Your task to perform on an android device: turn on javascript in the chrome app Image 0: 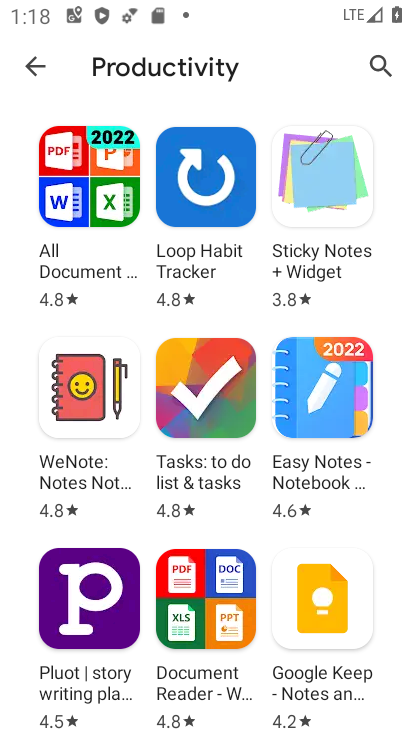
Step 0: press home button
Your task to perform on an android device: turn on javascript in the chrome app Image 1: 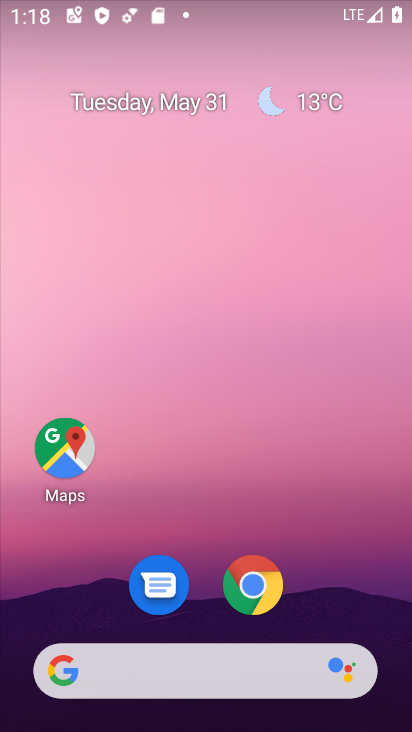
Step 1: click (258, 591)
Your task to perform on an android device: turn on javascript in the chrome app Image 2: 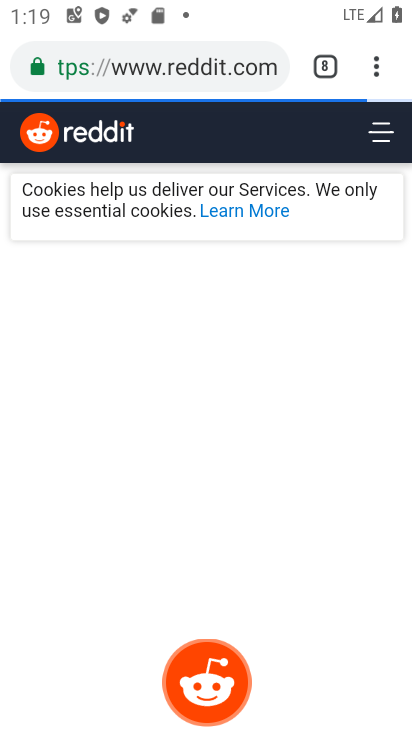
Step 2: click (367, 69)
Your task to perform on an android device: turn on javascript in the chrome app Image 3: 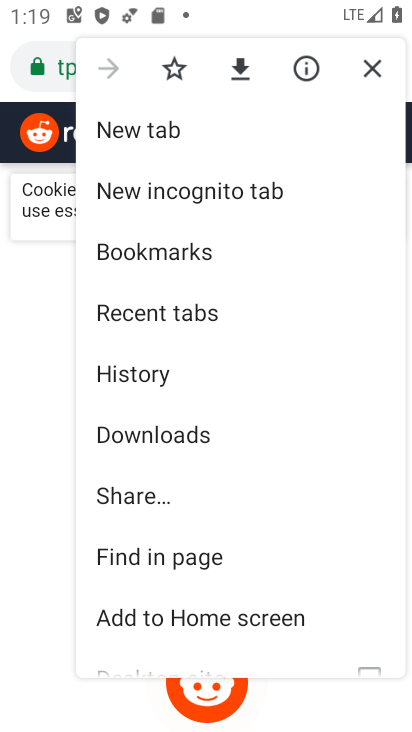
Step 3: drag from (244, 494) to (262, 292)
Your task to perform on an android device: turn on javascript in the chrome app Image 4: 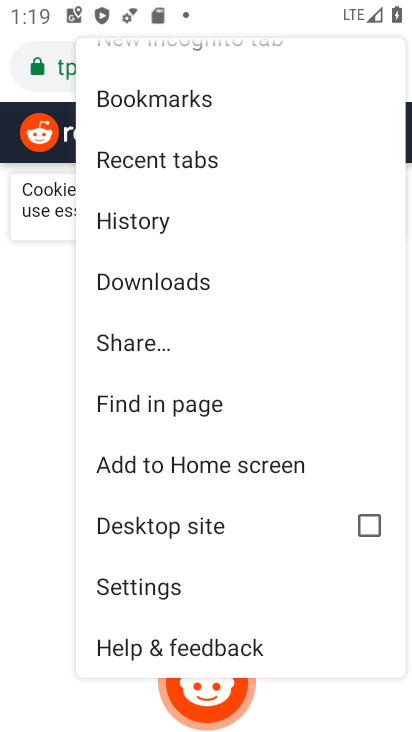
Step 4: click (172, 590)
Your task to perform on an android device: turn on javascript in the chrome app Image 5: 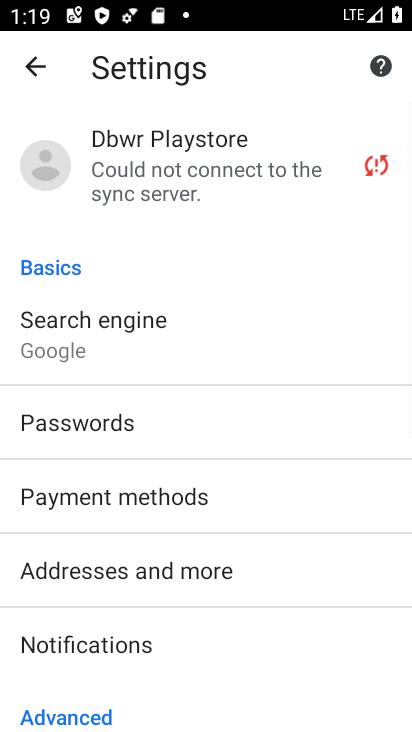
Step 5: drag from (280, 525) to (278, 125)
Your task to perform on an android device: turn on javascript in the chrome app Image 6: 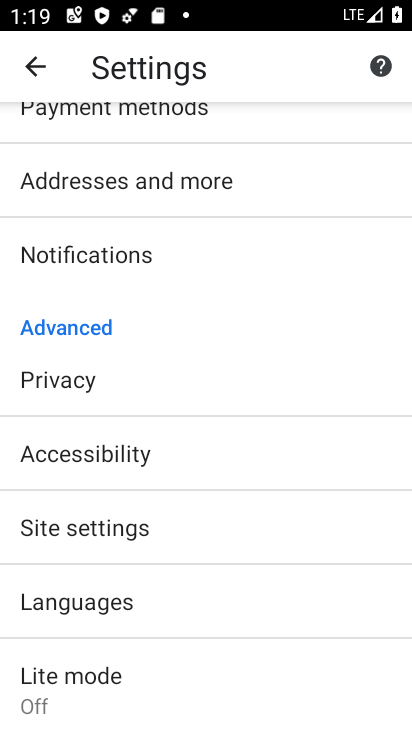
Step 6: click (176, 528)
Your task to perform on an android device: turn on javascript in the chrome app Image 7: 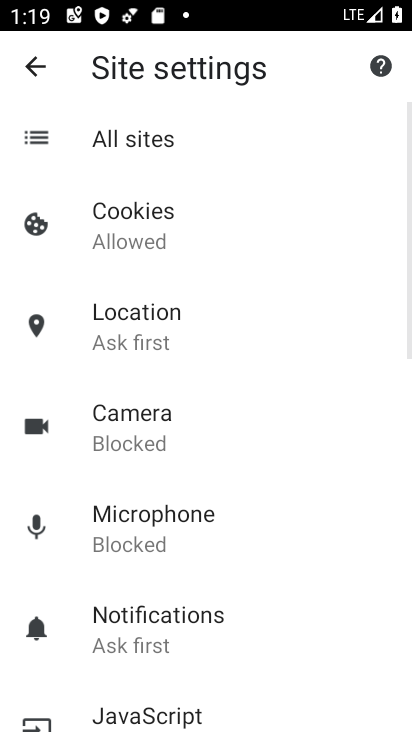
Step 7: drag from (262, 475) to (276, 207)
Your task to perform on an android device: turn on javascript in the chrome app Image 8: 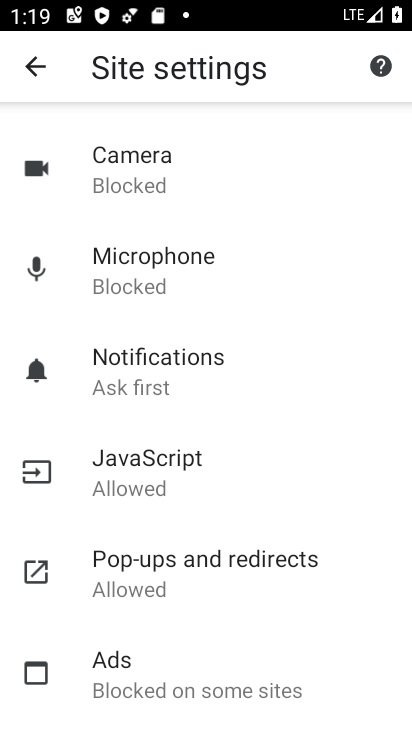
Step 8: click (207, 474)
Your task to perform on an android device: turn on javascript in the chrome app Image 9: 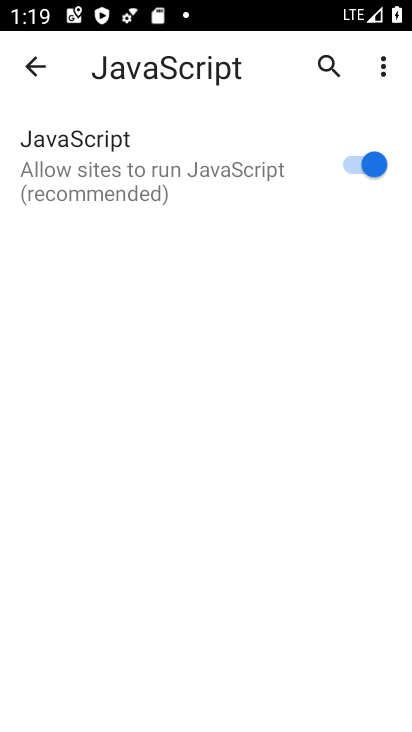
Step 9: task complete